Your task to perform on an android device: turn on location history Image 0: 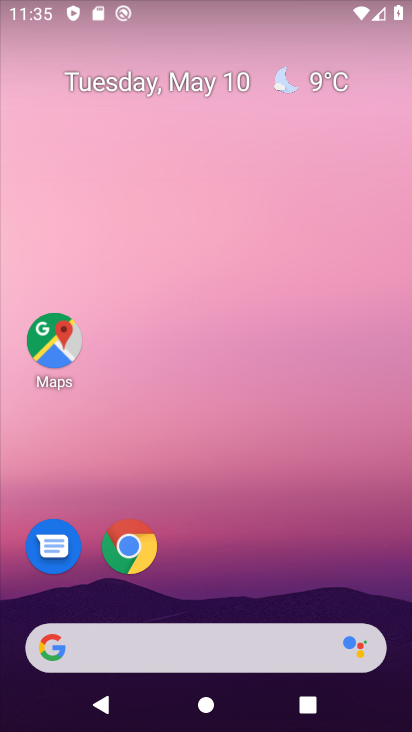
Step 0: drag from (234, 576) to (295, 290)
Your task to perform on an android device: turn on location history Image 1: 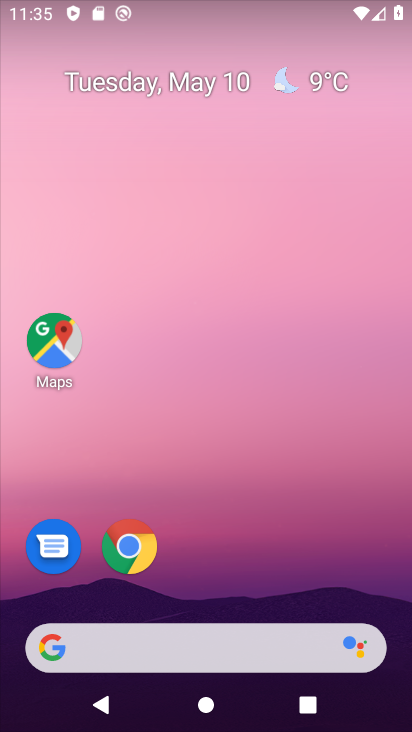
Step 1: drag from (209, 598) to (297, 2)
Your task to perform on an android device: turn on location history Image 2: 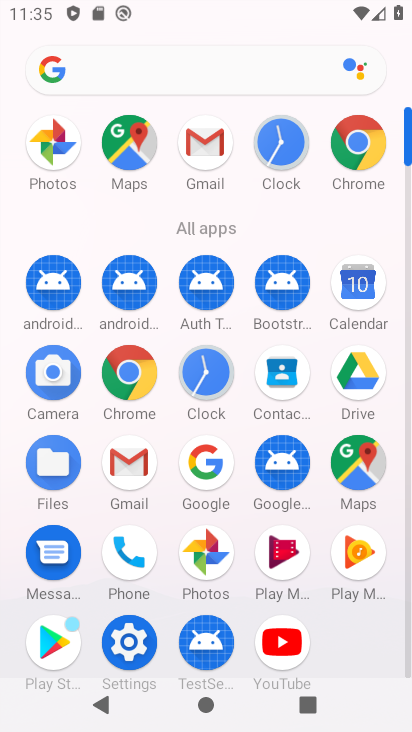
Step 2: click (135, 637)
Your task to perform on an android device: turn on location history Image 3: 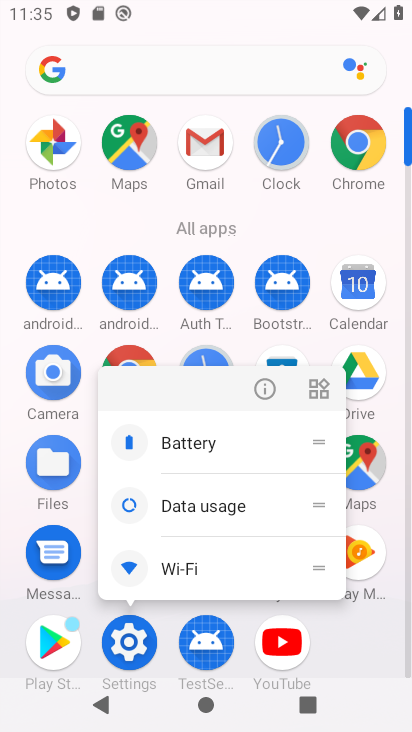
Step 3: click (268, 390)
Your task to perform on an android device: turn on location history Image 4: 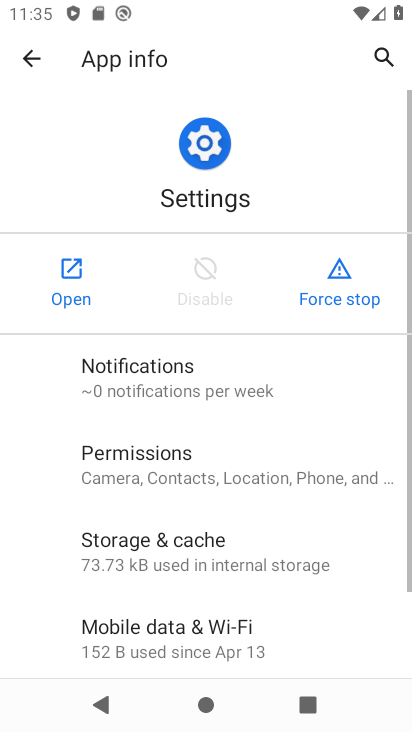
Step 4: click (68, 264)
Your task to perform on an android device: turn on location history Image 5: 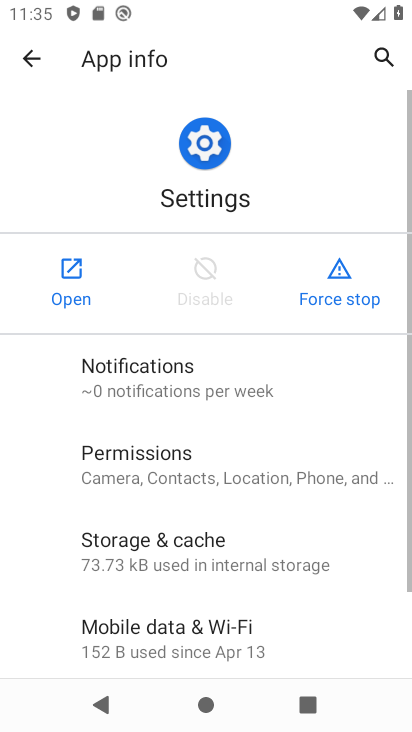
Step 5: click (69, 265)
Your task to perform on an android device: turn on location history Image 6: 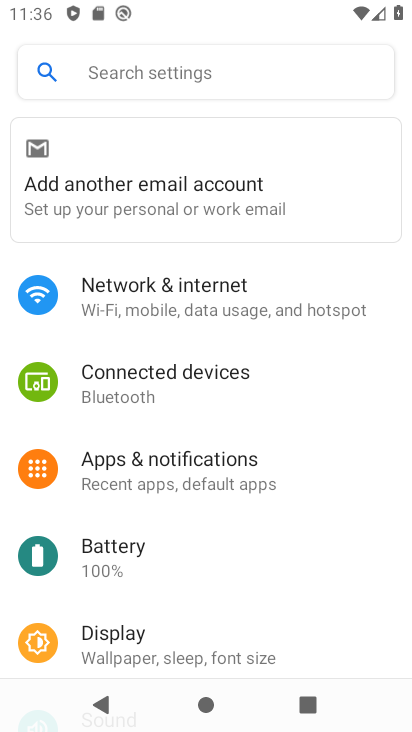
Step 6: click (212, 83)
Your task to perform on an android device: turn on location history Image 7: 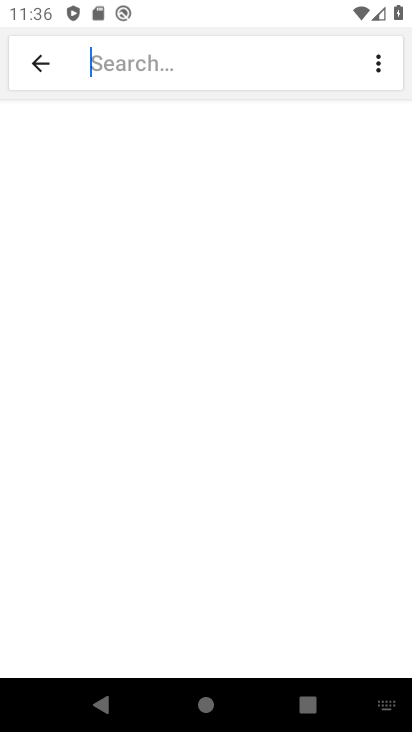
Step 7: click (25, 66)
Your task to perform on an android device: turn on location history Image 8: 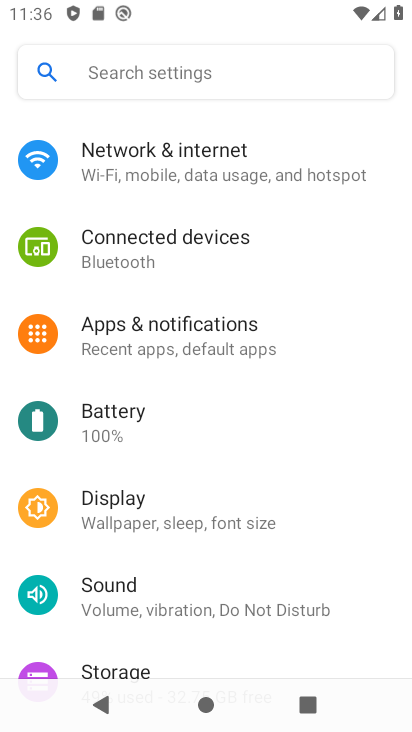
Step 8: drag from (151, 376) to (332, 3)
Your task to perform on an android device: turn on location history Image 9: 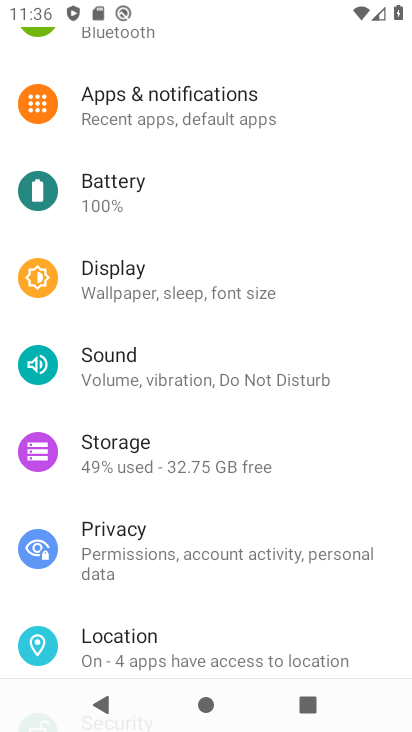
Step 9: click (148, 639)
Your task to perform on an android device: turn on location history Image 10: 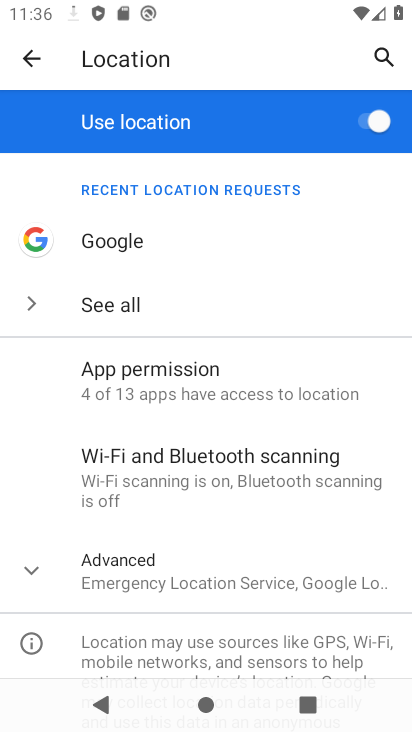
Step 10: click (146, 596)
Your task to perform on an android device: turn on location history Image 11: 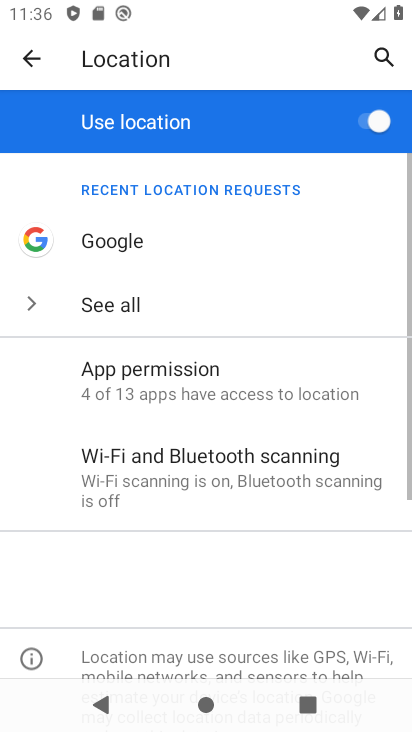
Step 11: drag from (146, 596) to (321, 126)
Your task to perform on an android device: turn on location history Image 12: 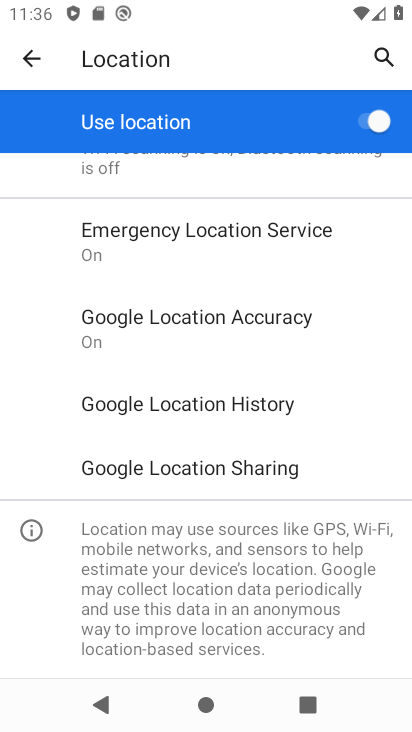
Step 12: click (224, 402)
Your task to perform on an android device: turn on location history Image 13: 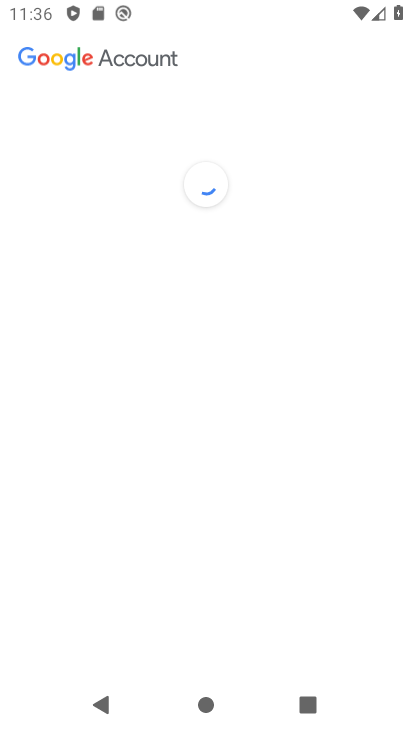
Step 13: drag from (134, 601) to (357, 170)
Your task to perform on an android device: turn on location history Image 14: 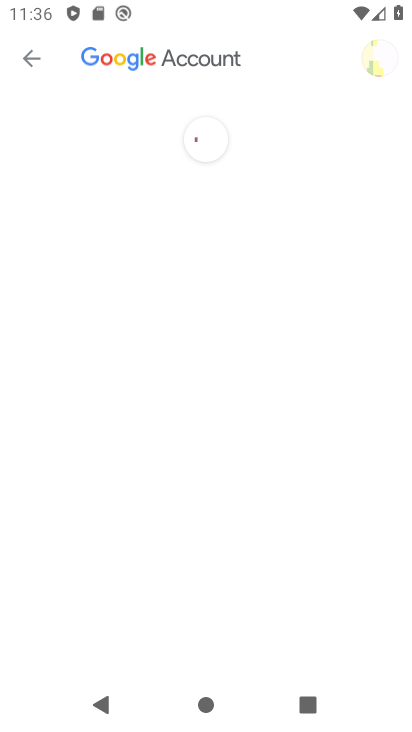
Step 14: drag from (207, 537) to (378, 153)
Your task to perform on an android device: turn on location history Image 15: 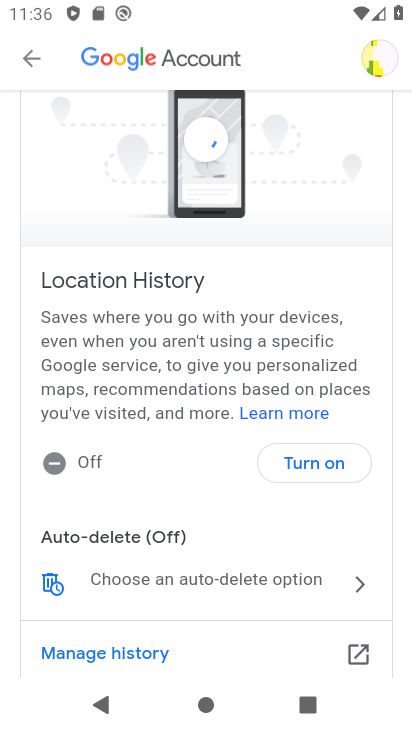
Step 15: click (295, 474)
Your task to perform on an android device: turn on location history Image 16: 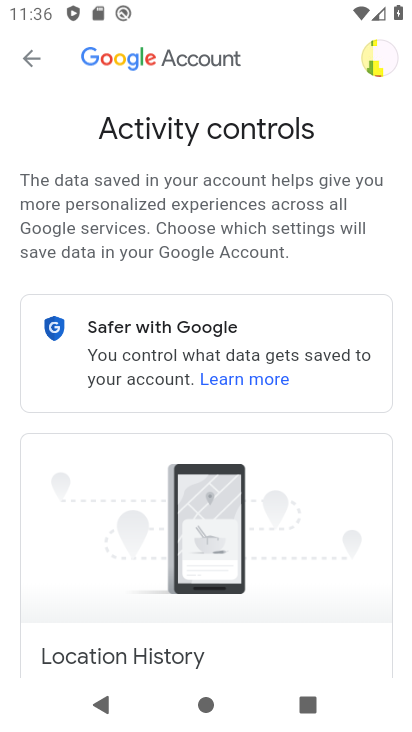
Step 16: drag from (223, 622) to (366, 195)
Your task to perform on an android device: turn on location history Image 17: 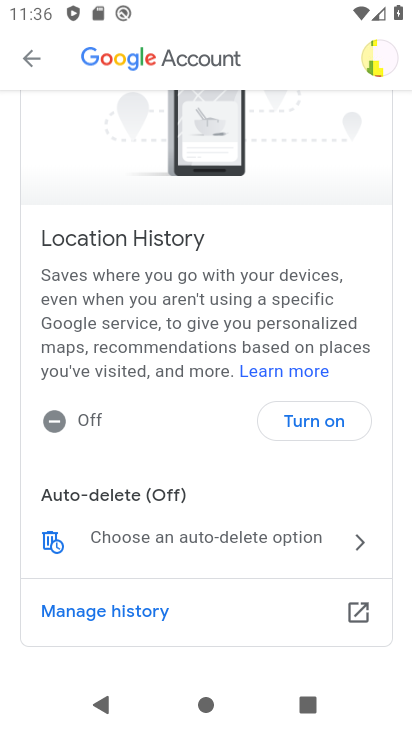
Step 17: click (314, 430)
Your task to perform on an android device: turn on location history Image 18: 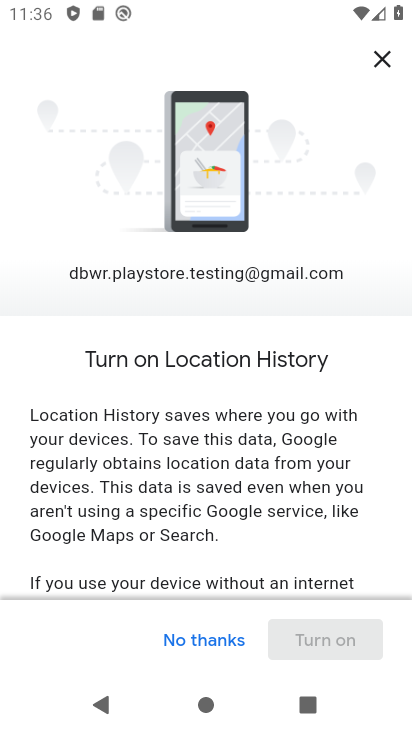
Step 18: drag from (278, 583) to (355, 164)
Your task to perform on an android device: turn on location history Image 19: 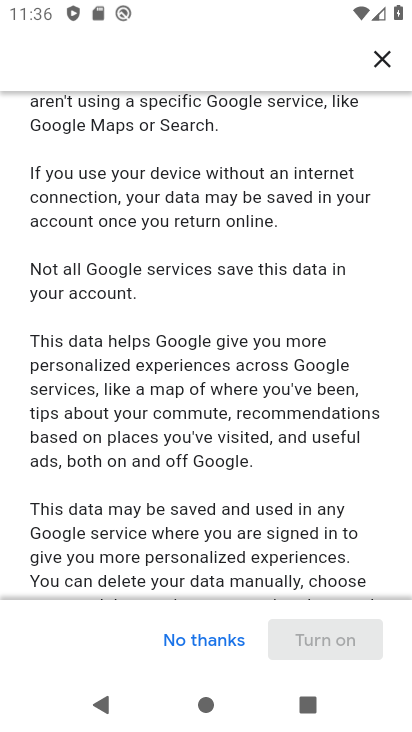
Step 19: drag from (263, 488) to (350, 60)
Your task to perform on an android device: turn on location history Image 20: 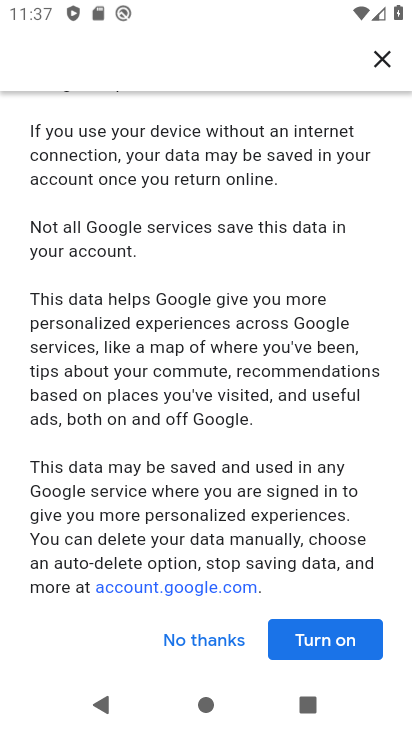
Step 20: drag from (197, 562) to (254, 409)
Your task to perform on an android device: turn on location history Image 21: 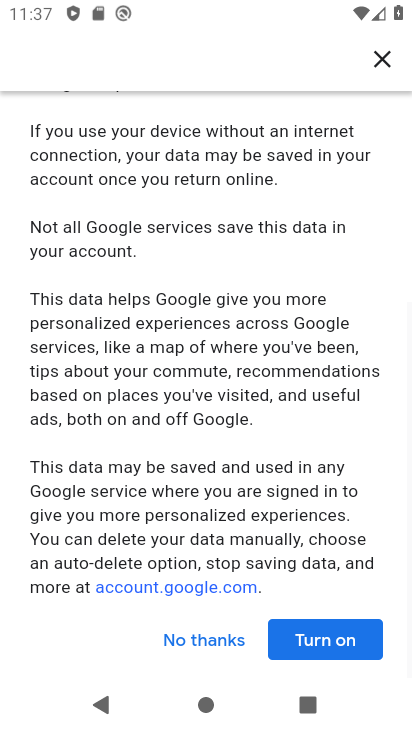
Step 21: click (345, 644)
Your task to perform on an android device: turn on location history Image 22: 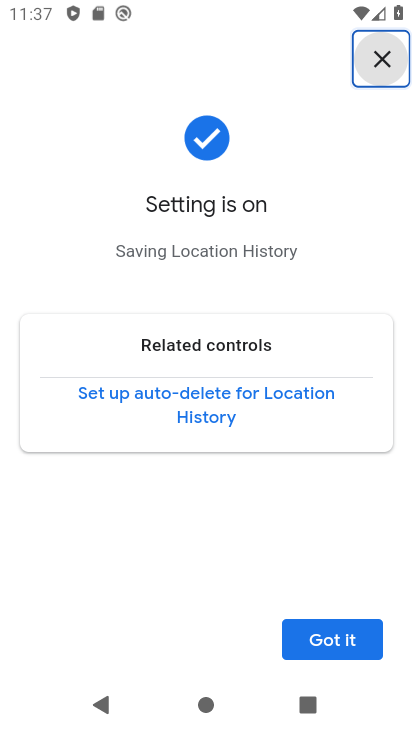
Step 22: click (356, 650)
Your task to perform on an android device: turn on location history Image 23: 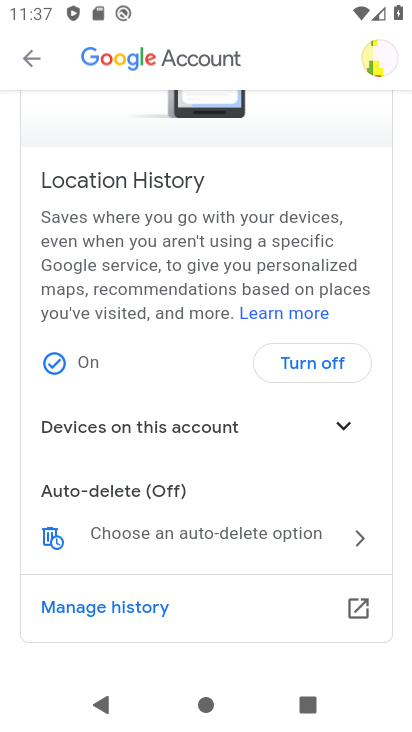
Step 23: task complete